Your task to perform on an android device: check battery use Image 0: 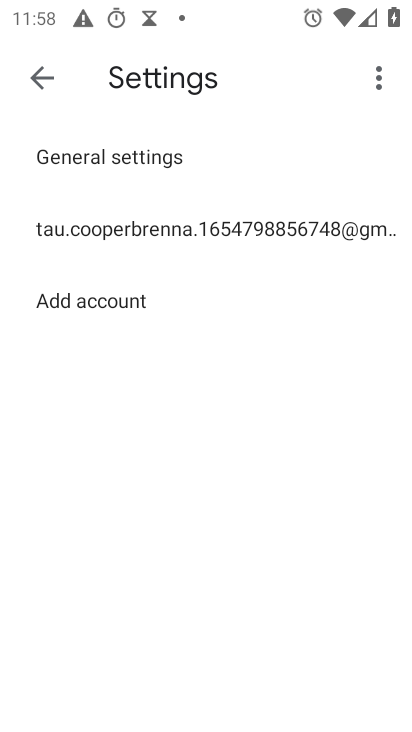
Step 0: press home button
Your task to perform on an android device: check battery use Image 1: 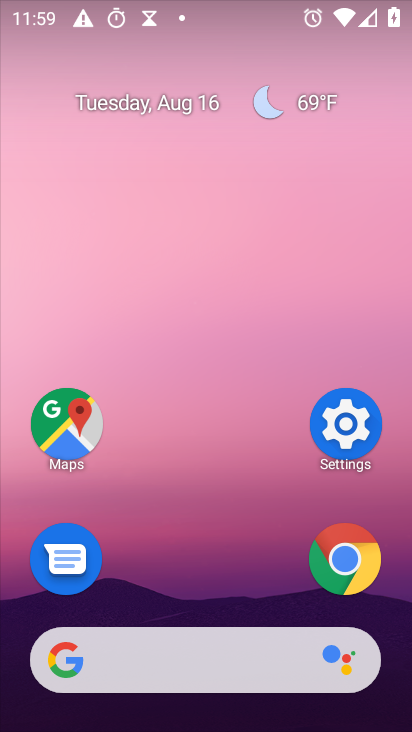
Step 1: click (357, 428)
Your task to perform on an android device: check battery use Image 2: 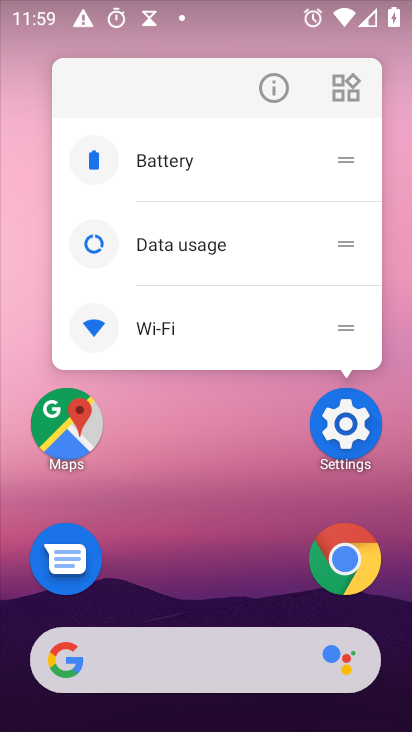
Step 2: click (350, 427)
Your task to perform on an android device: check battery use Image 3: 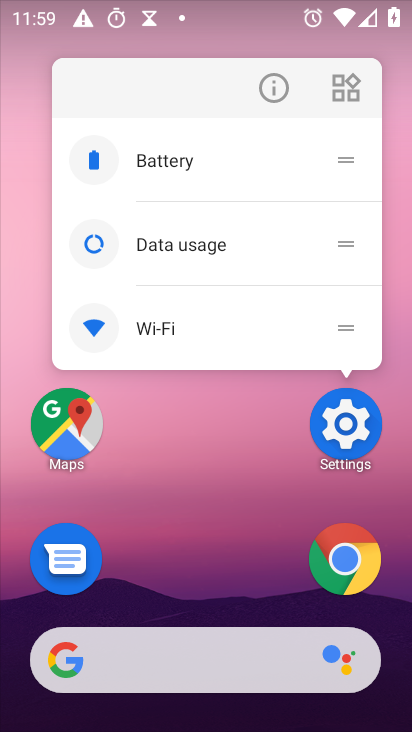
Step 3: click (337, 429)
Your task to perform on an android device: check battery use Image 4: 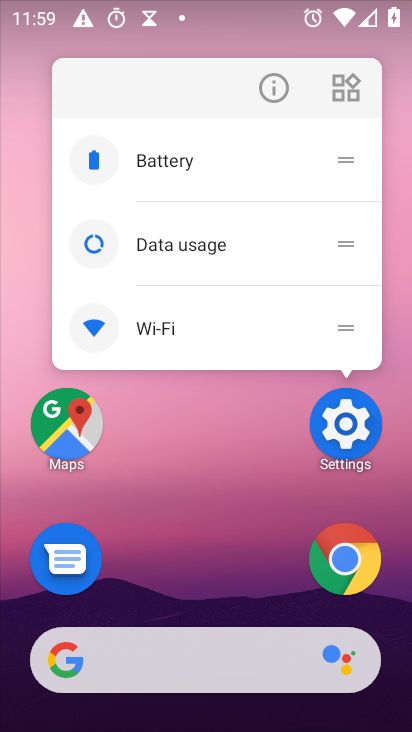
Step 4: click (337, 430)
Your task to perform on an android device: check battery use Image 5: 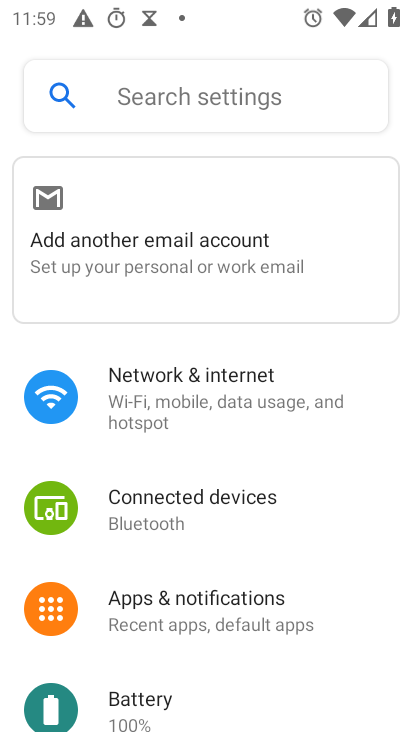
Step 5: click (128, 706)
Your task to perform on an android device: check battery use Image 6: 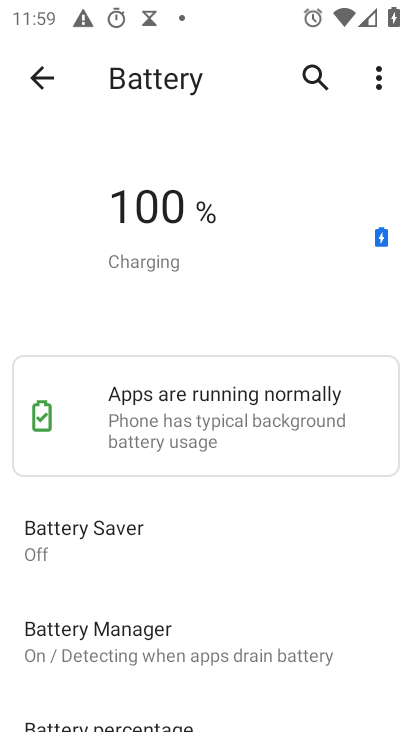
Step 6: click (376, 76)
Your task to perform on an android device: check battery use Image 7: 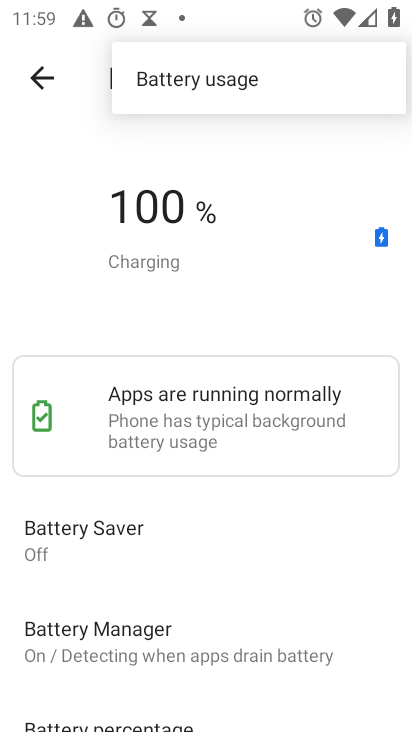
Step 7: click (247, 82)
Your task to perform on an android device: check battery use Image 8: 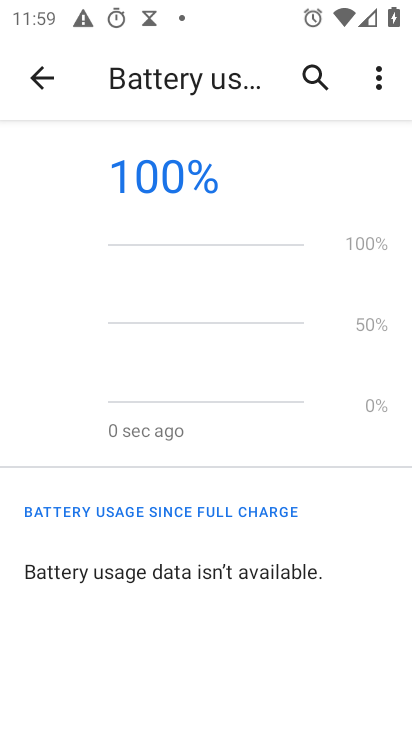
Step 8: task complete